Your task to perform on an android device: set the stopwatch Image 0: 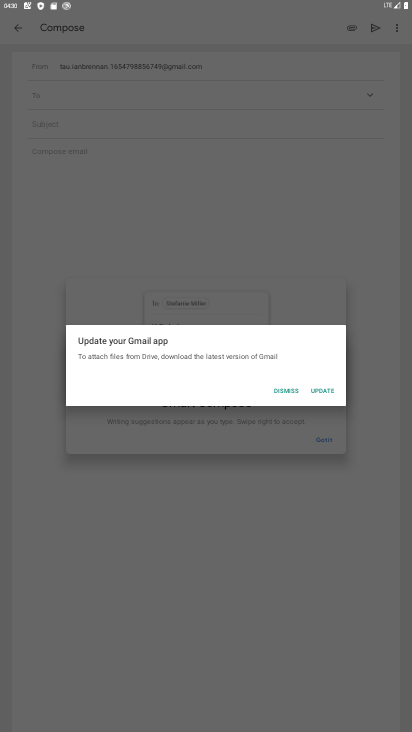
Step 0: press home button
Your task to perform on an android device: set the stopwatch Image 1: 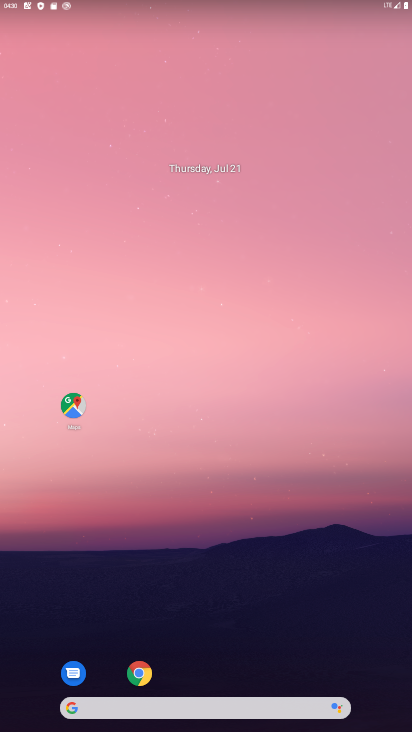
Step 1: drag from (279, 634) to (340, 134)
Your task to perform on an android device: set the stopwatch Image 2: 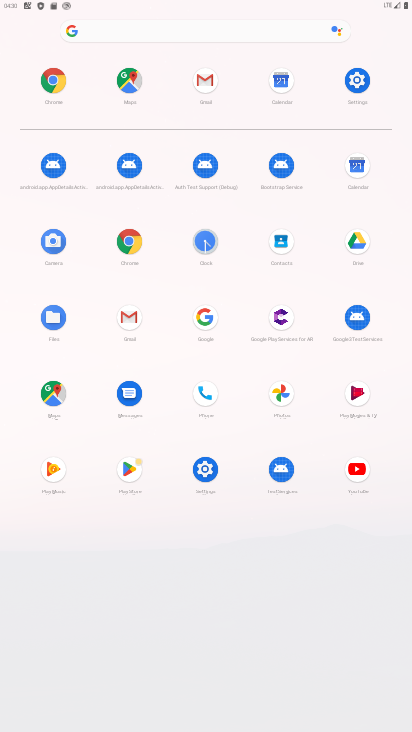
Step 2: click (208, 232)
Your task to perform on an android device: set the stopwatch Image 3: 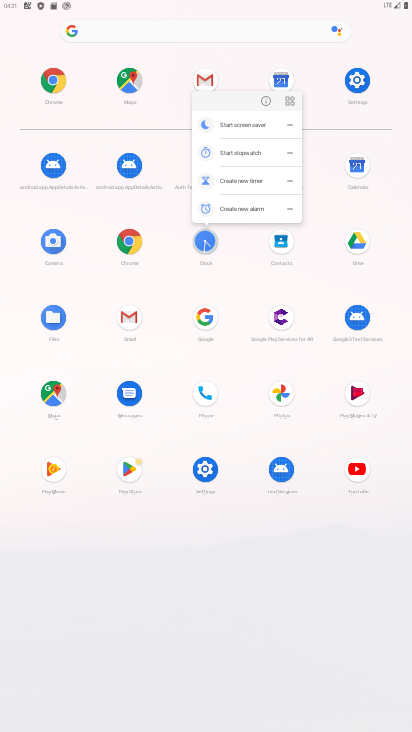
Step 3: click (200, 239)
Your task to perform on an android device: set the stopwatch Image 4: 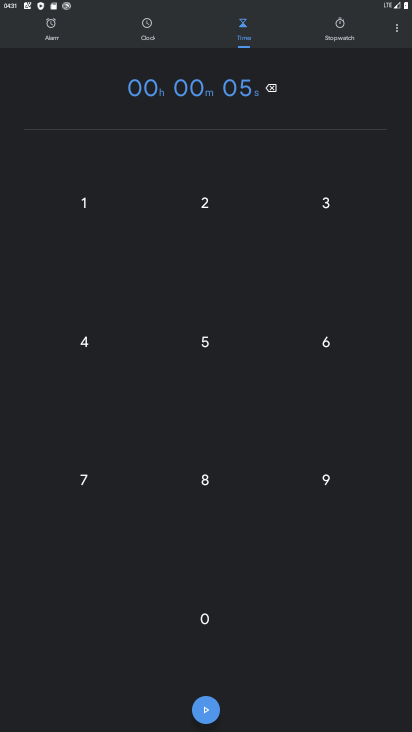
Step 4: click (327, 28)
Your task to perform on an android device: set the stopwatch Image 5: 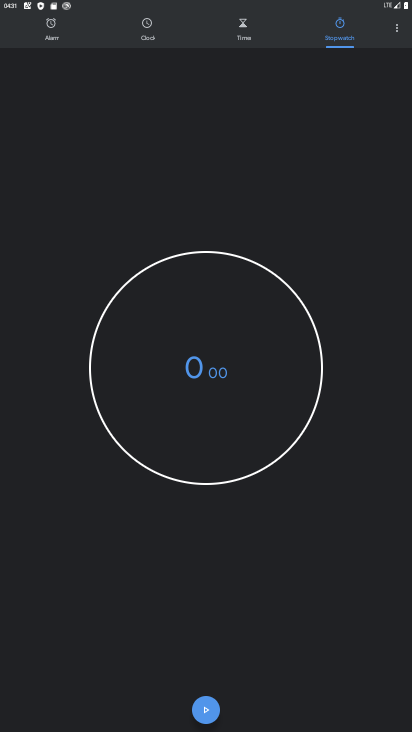
Step 5: click (200, 714)
Your task to perform on an android device: set the stopwatch Image 6: 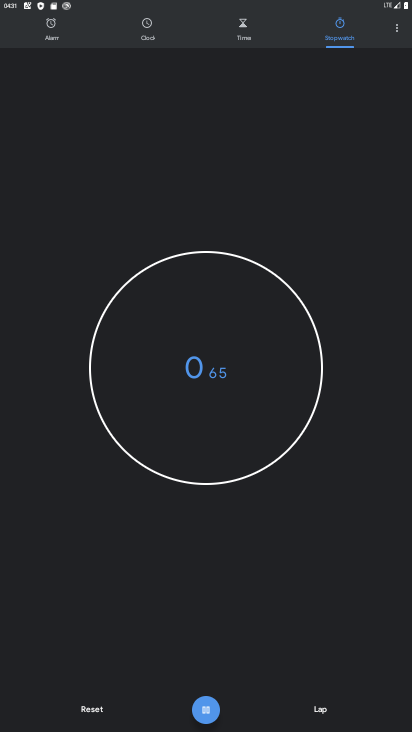
Step 6: click (200, 714)
Your task to perform on an android device: set the stopwatch Image 7: 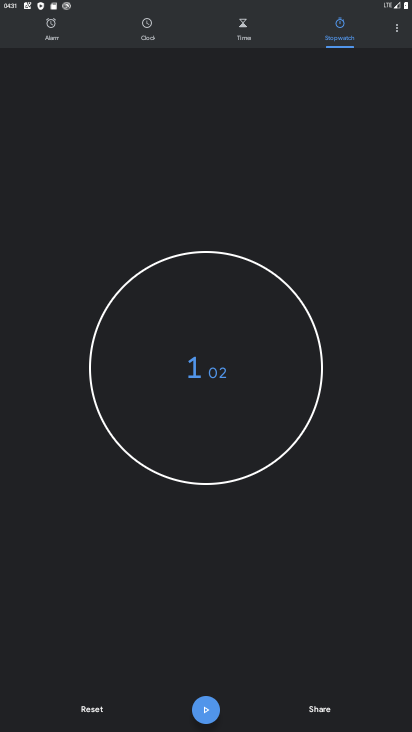
Step 7: task complete